Your task to perform on an android device: turn off javascript in the chrome app Image 0: 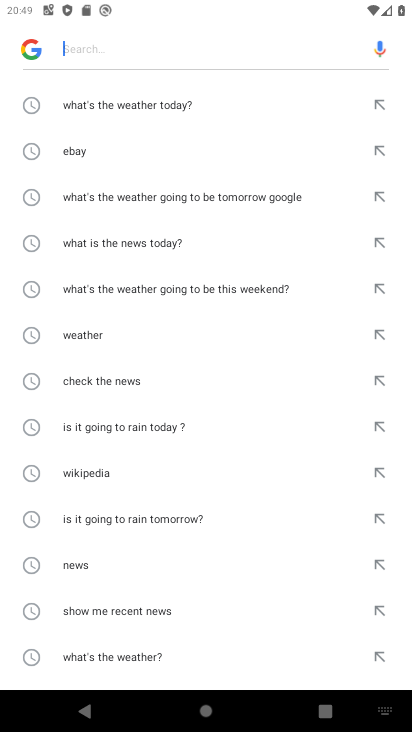
Step 0: press home button
Your task to perform on an android device: turn off javascript in the chrome app Image 1: 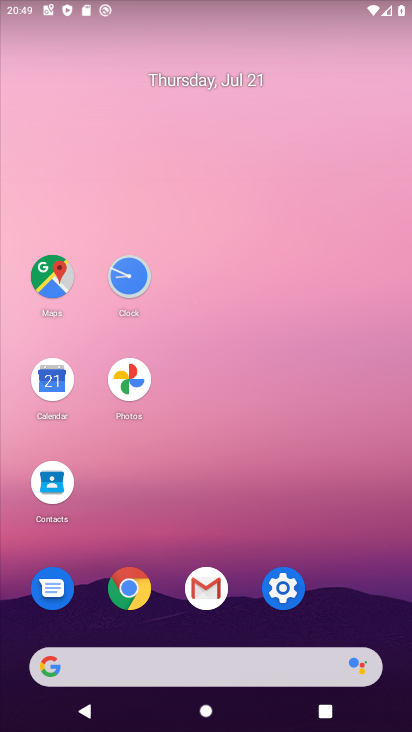
Step 1: click (127, 596)
Your task to perform on an android device: turn off javascript in the chrome app Image 2: 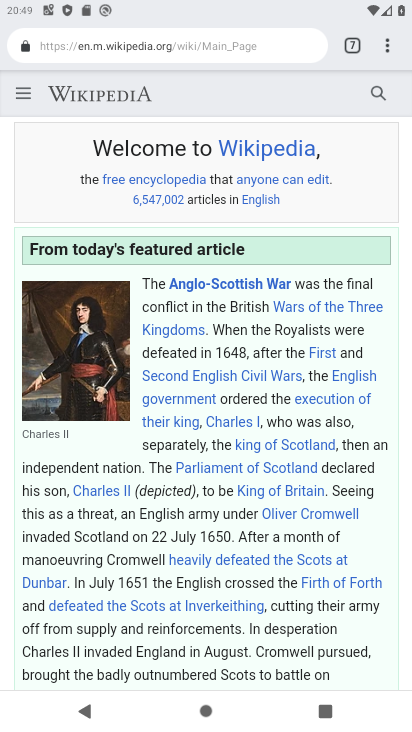
Step 2: click (385, 41)
Your task to perform on an android device: turn off javascript in the chrome app Image 3: 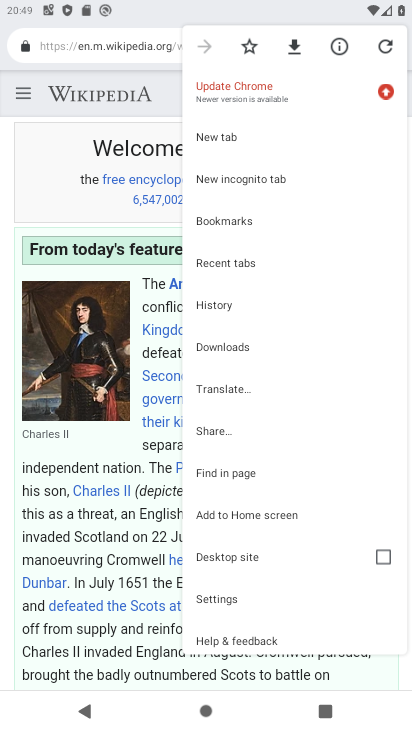
Step 3: click (215, 596)
Your task to perform on an android device: turn off javascript in the chrome app Image 4: 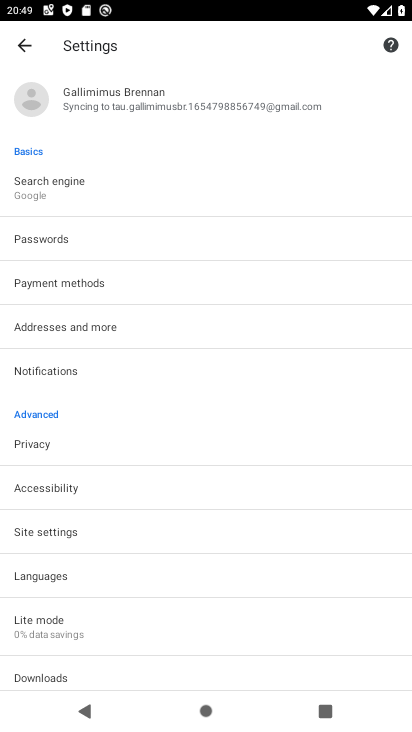
Step 4: click (52, 526)
Your task to perform on an android device: turn off javascript in the chrome app Image 5: 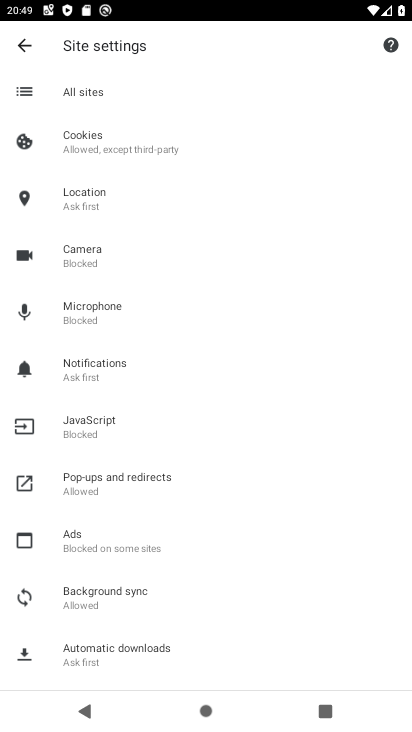
Step 5: click (91, 423)
Your task to perform on an android device: turn off javascript in the chrome app Image 6: 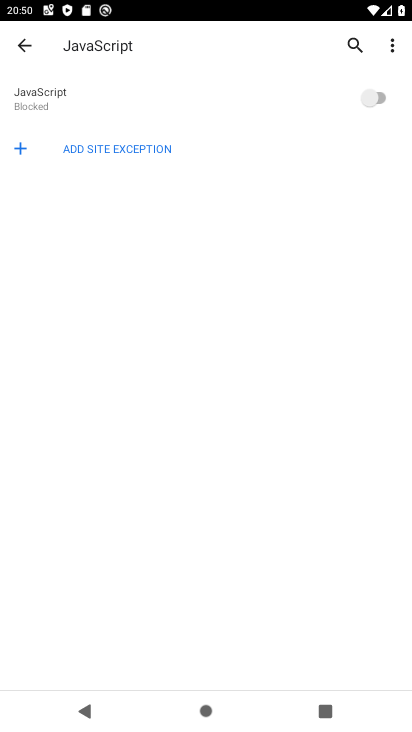
Step 6: task complete